Your task to perform on an android device: change timer sound Image 0: 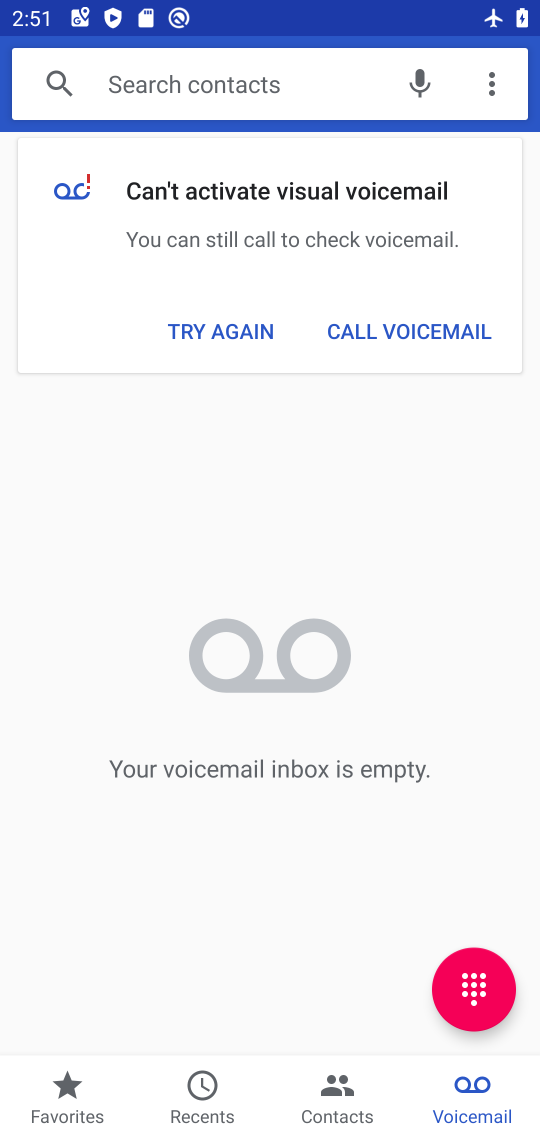
Step 0: press home button
Your task to perform on an android device: change timer sound Image 1: 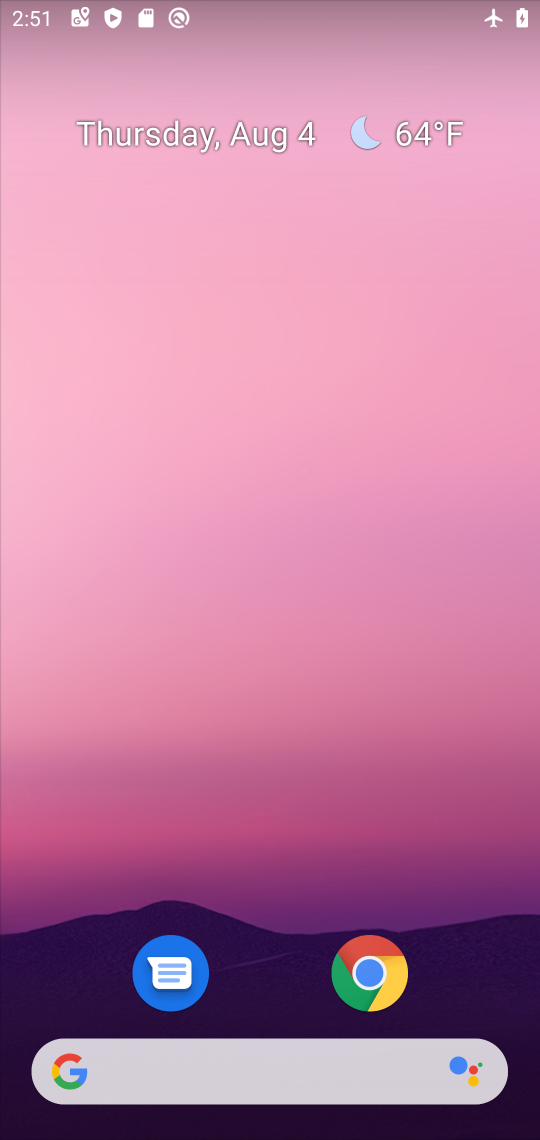
Step 1: drag from (252, 2) to (479, 163)
Your task to perform on an android device: change timer sound Image 2: 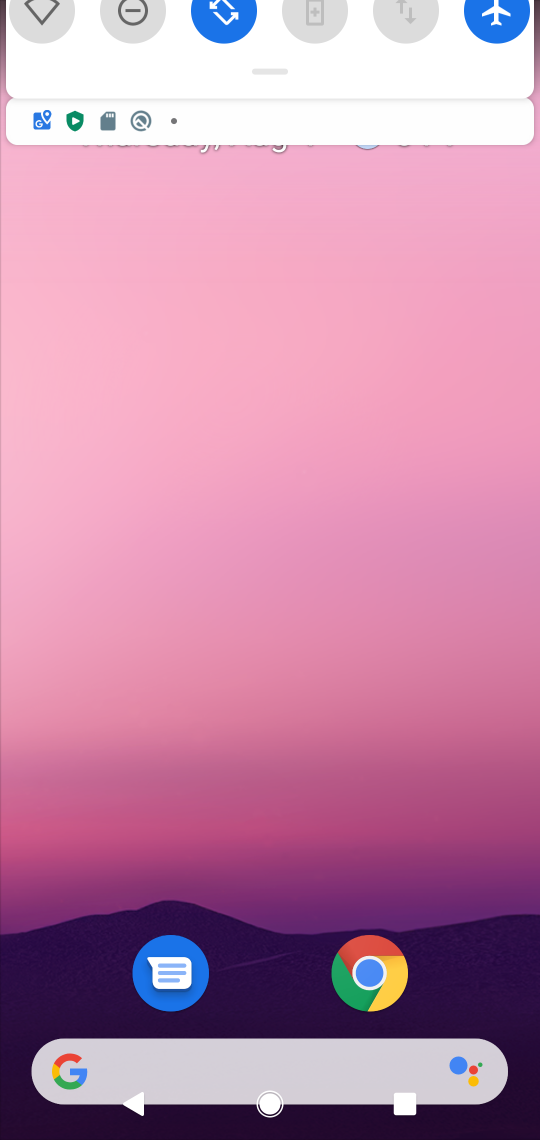
Step 2: drag from (309, 772) to (522, 201)
Your task to perform on an android device: change timer sound Image 3: 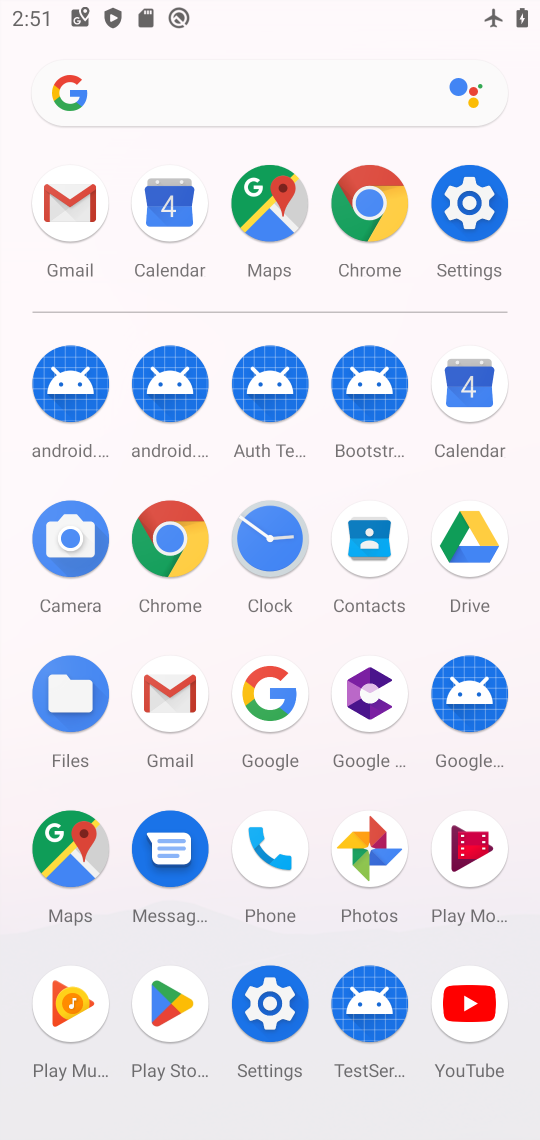
Step 3: click (277, 547)
Your task to perform on an android device: change timer sound Image 4: 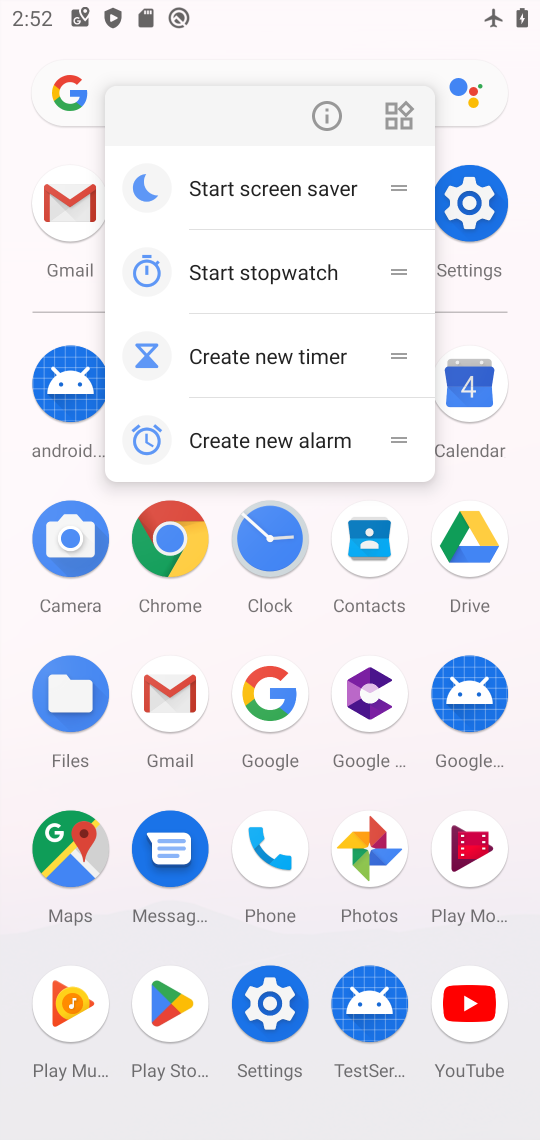
Step 4: click (253, 577)
Your task to perform on an android device: change timer sound Image 5: 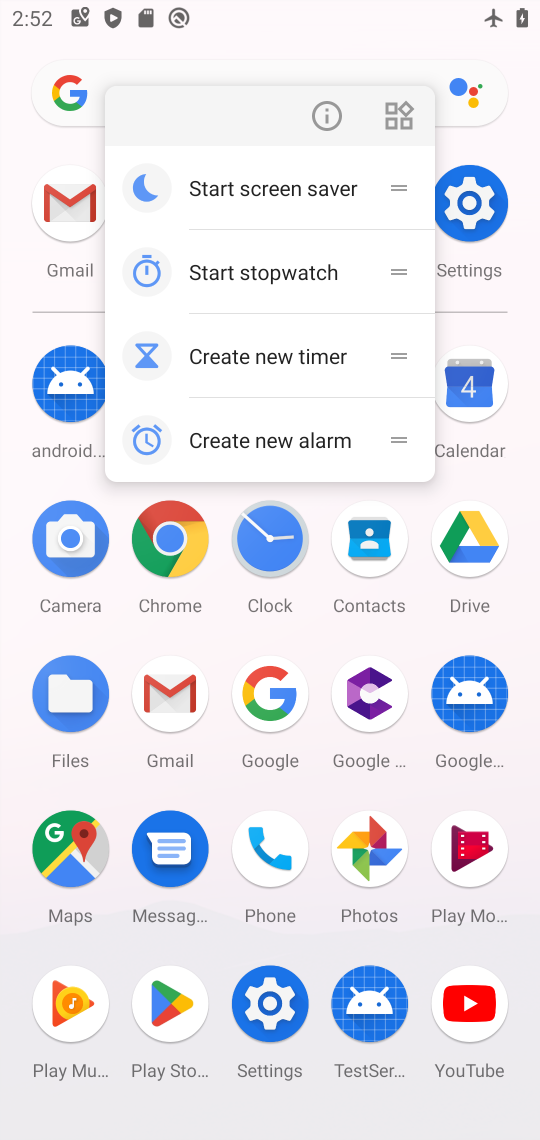
Step 5: click (247, 526)
Your task to perform on an android device: change timer sound Image 6: 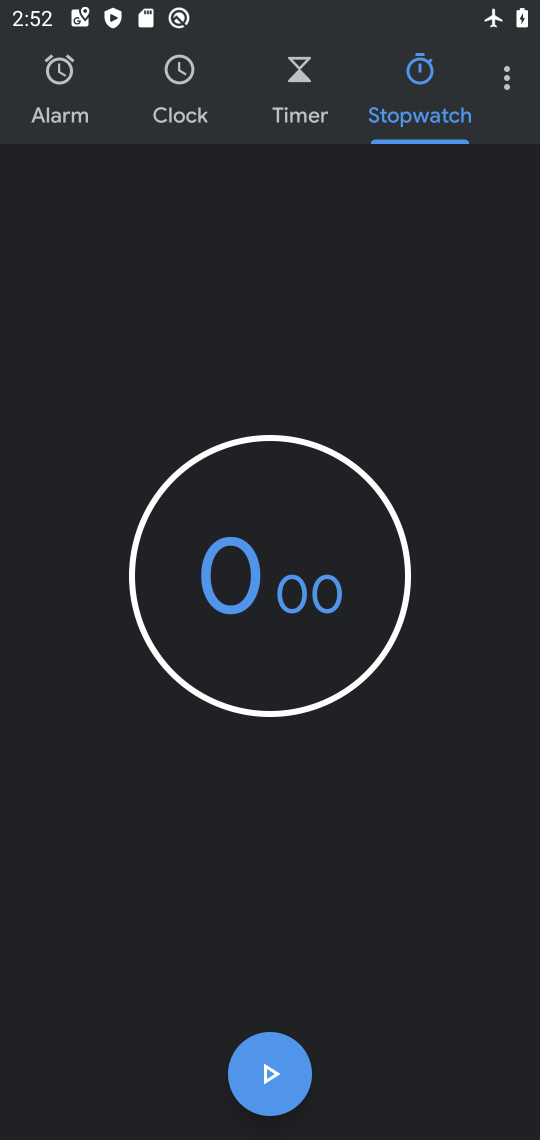
Step 6: click (514, 81)
Your task to perform on an android device: change timer sound Image 7: 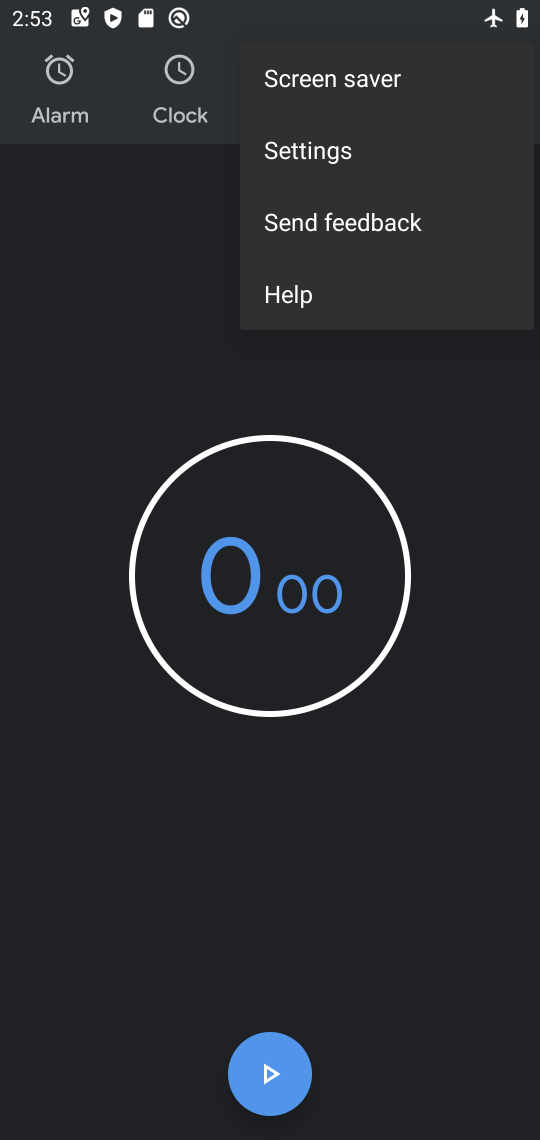
Step 7: click (358, 149)
Your task to perform on an android device: change timer sound Image 8: 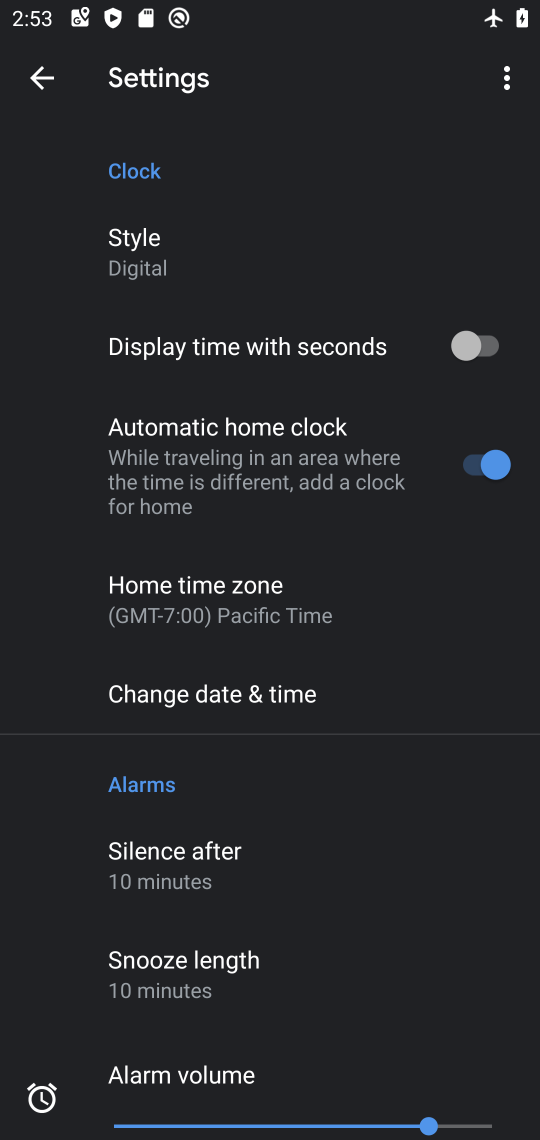
Step 8: drag from (228, 837) to (460, 45)
Your task to perform on an android device: change timer sound Image 9: 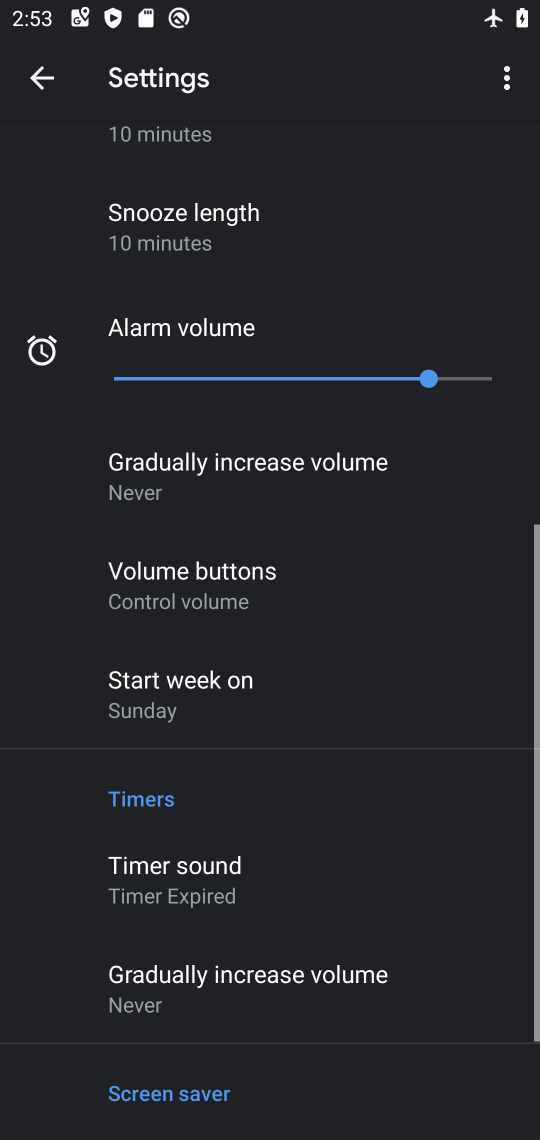
Step 9: click (228, 825)
Your task to perform on an android device: change timer sound Image 10: 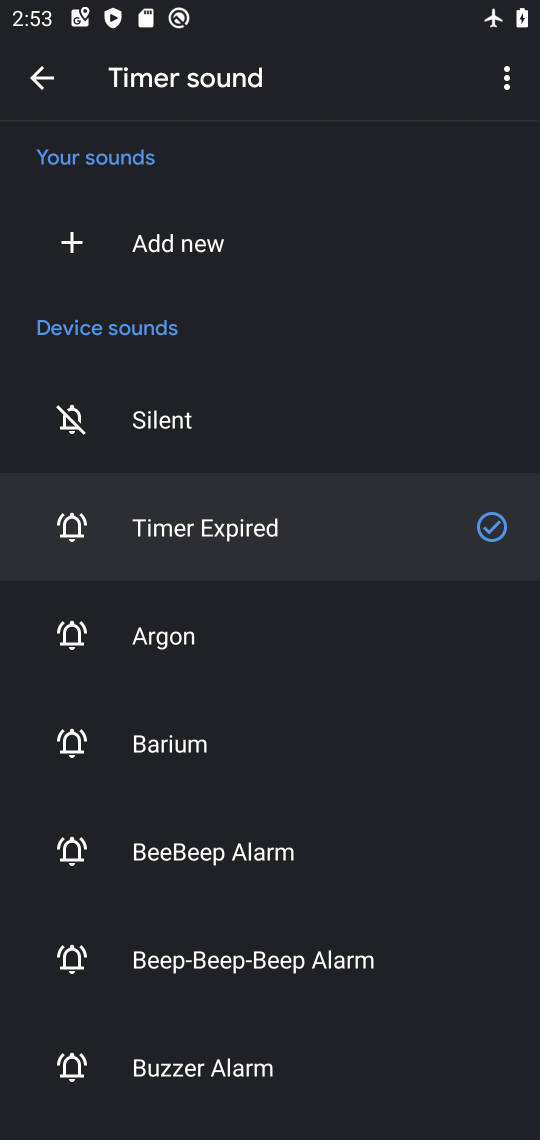
Step 10: click (194, 663)
Your task to perform on an android device: change timer sound Image 11: 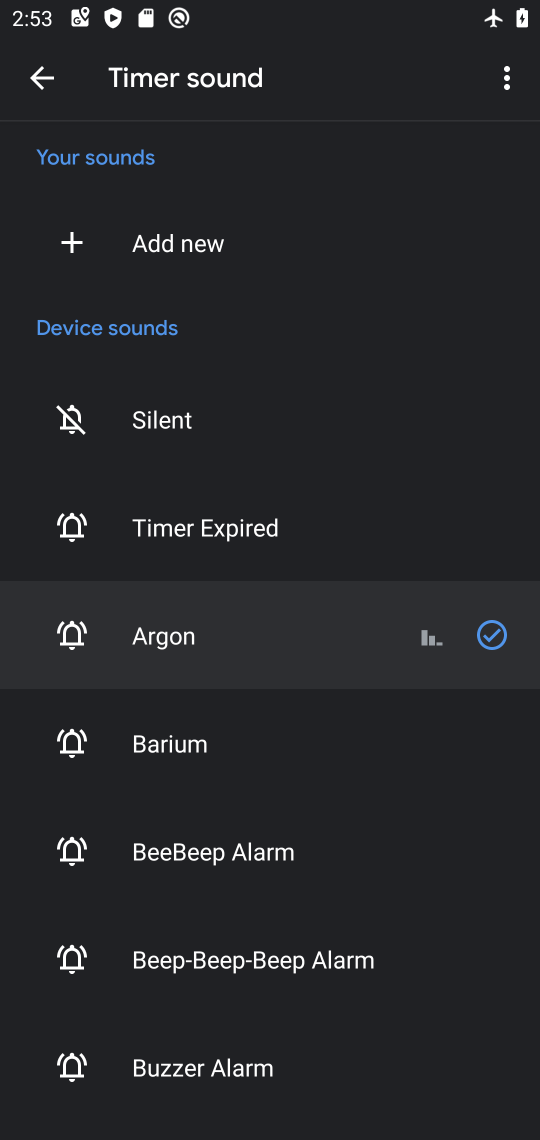
Step 11: task complete